Your task to perform on an android device: Go to wifi settings Image 0: 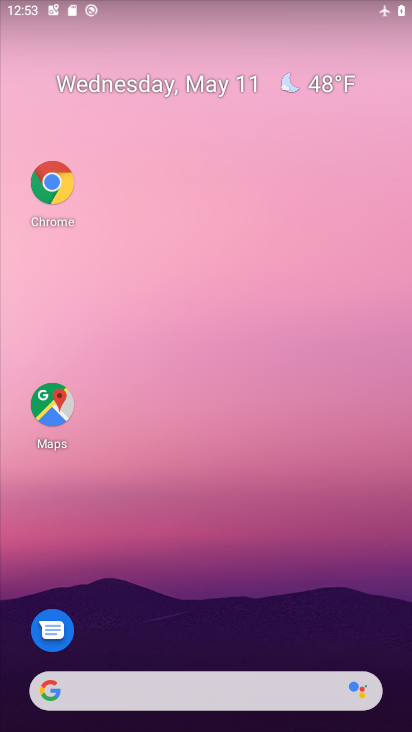
Step 0: drag from (198, 662) to (260, 42)
Your task to perform on an android device: Go to wifi settings Image 1: 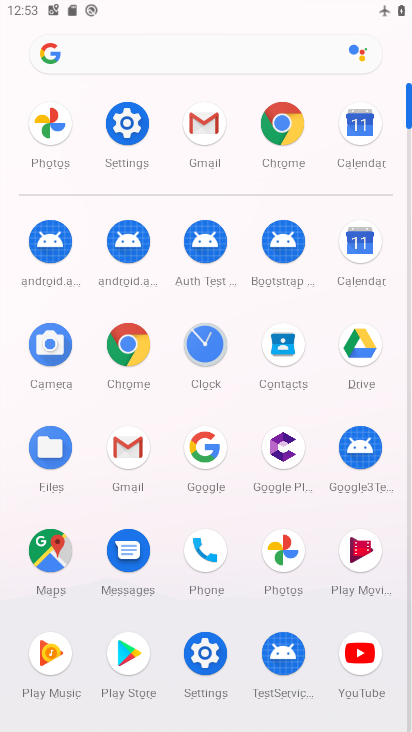
Step 1: click (141, 184)
Your task to perform on an android device: Go to wifi settings Image 2: 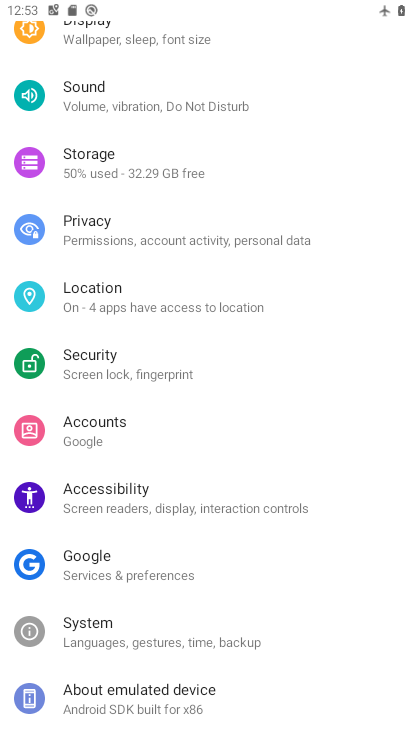
Step 2: drag from (139, 188) to (120, 569)
Your task to perform on an android device: Go to wifi settings Image 3: 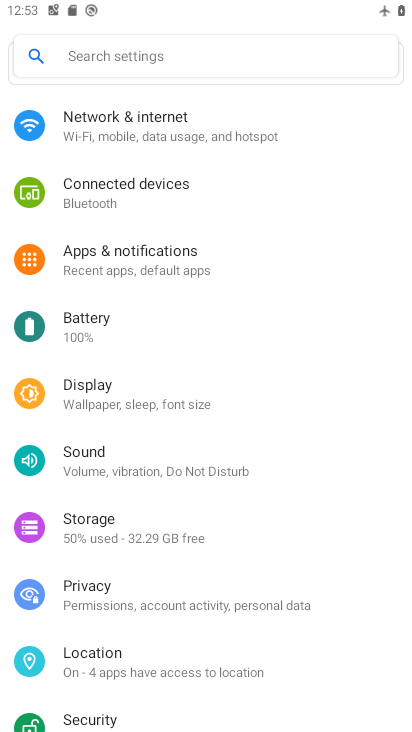
Step 3: click (162, 100)
Your task to perform on an android device: Go to wifi settings Image 4: 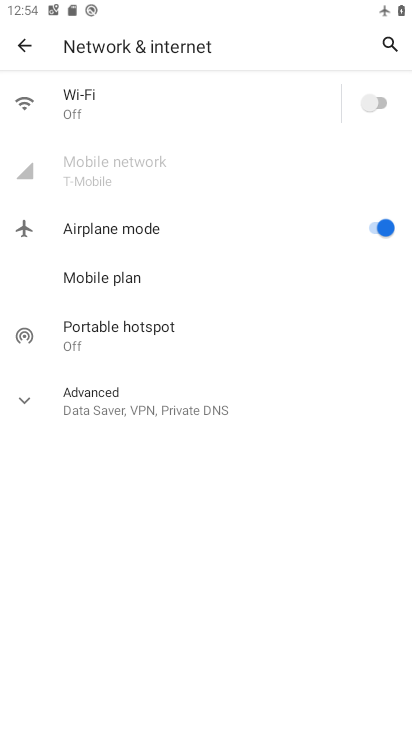
Step 4: click (128, 99)
Your task to perform on an android device: Go to wifi settings Image 5: 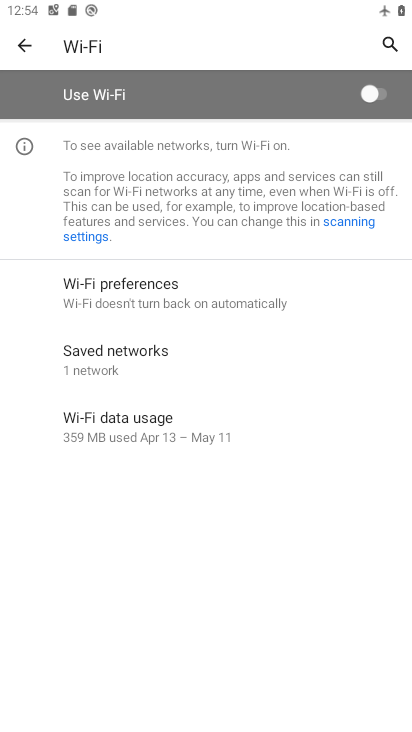
Step 5: task complete